Your task to perform on an android device: Open the phone app and click the voicemail tab. Image 0: 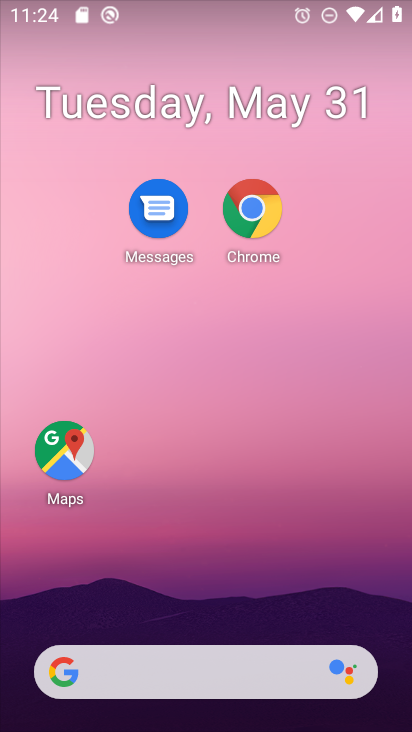
Step 0: press home button
Your task to perform on an android device: Open the phone app and click the voicemail tab. Image 1: 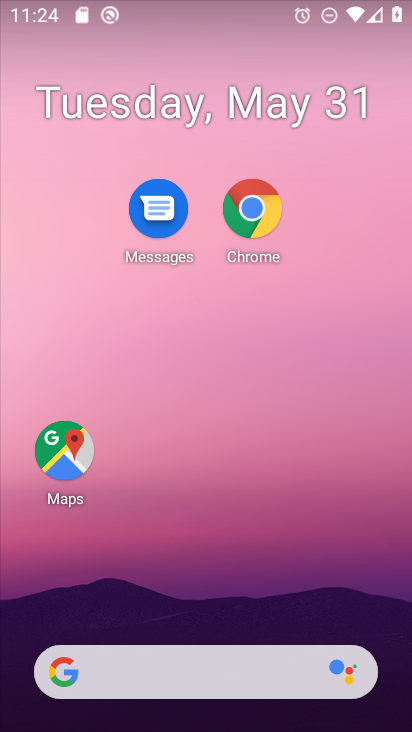
Step 1: drag from (246, 619) to (223, 126)
Your task to perform on an android device: Open the phone app and click the voicemail tab. Image 2: 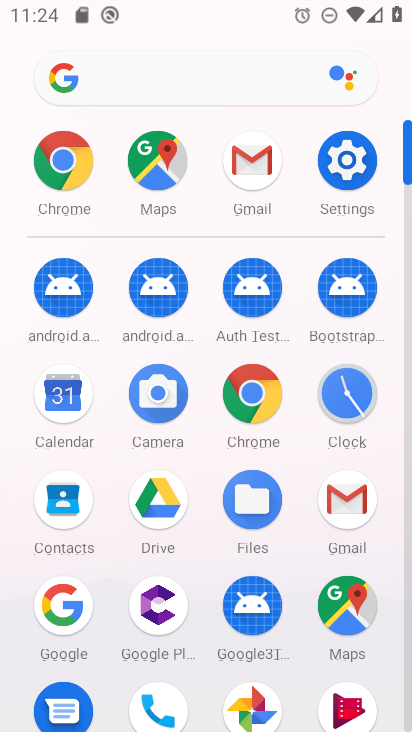
Step 2: click (166, 700)
Your task to perform on an android device: Open the phone app and click the voicemail tab. Image 3: 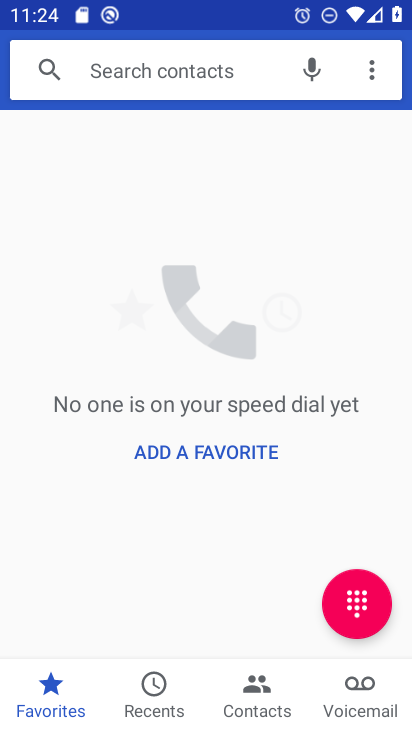
Step 3: click (346, 687)
Your task to perform on an android device: Open the phone app and click the voicemail tab. Image 4: 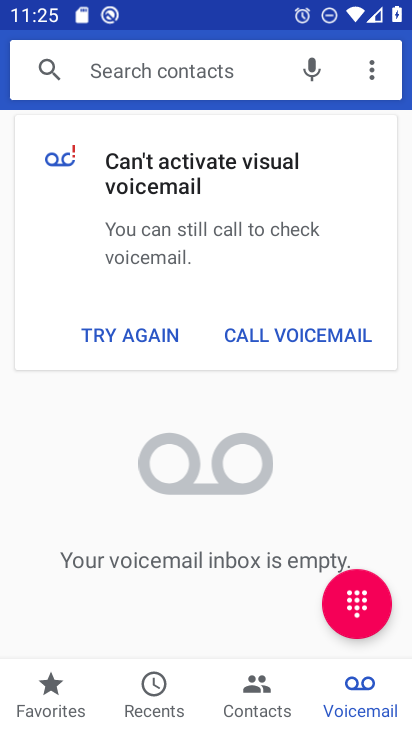
Step 4: task complete